Your task to perform on an android device: change notifications settings Image 0: 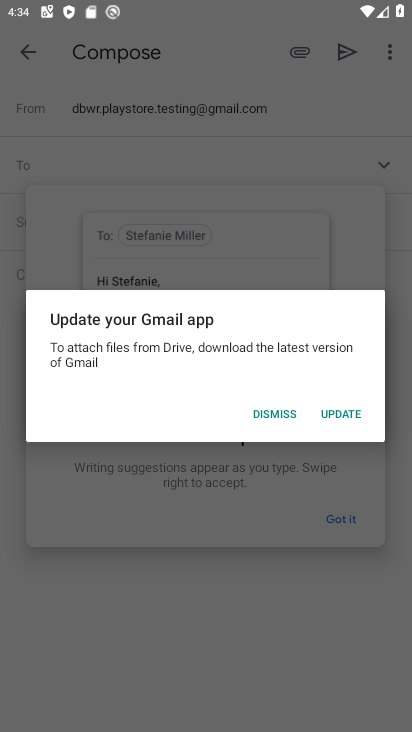
Step 0: press home button
Your task to perform on an android device: change notifications settings Image 1: 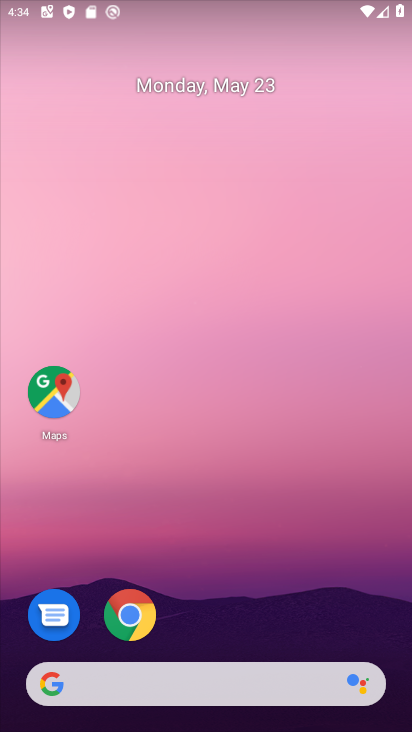
Step 1: drag from (267, 591) to (357, 43)
Your task to perform on an android device: change notifications settings Image 2: 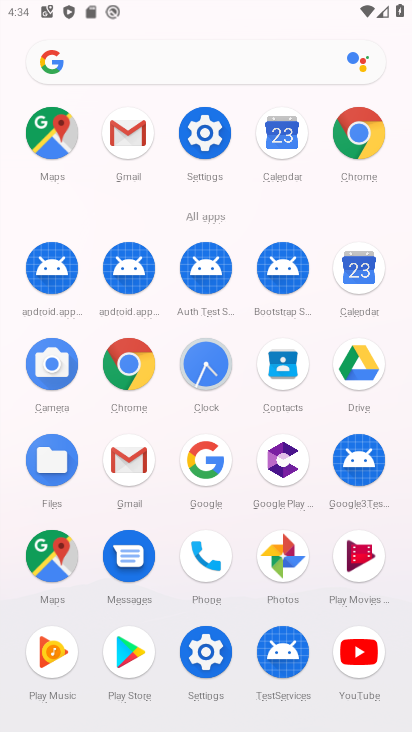
Step 2: click (196, 132)
Your task to perform on an android device: change notifications settings Image 3: 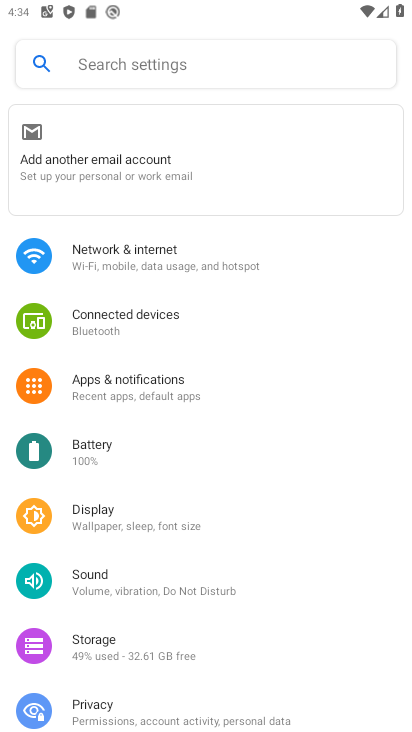
Step 3: click (122, 376)
Your task to perform on an android device: change notifications settings Image 4: 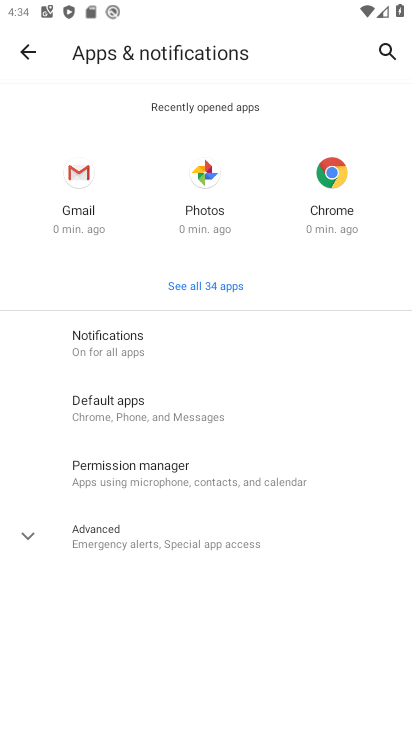
Step 4: click (147, 350)
Your task to perform on an android device: change notifications settings Image 5: 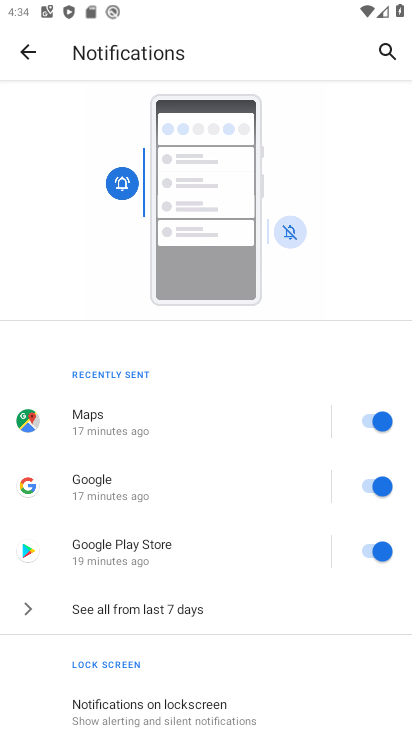
Step 5: drag from (235, 650) to (289, 203)
Your task to perform on an android device: change notifications settings Image 6: 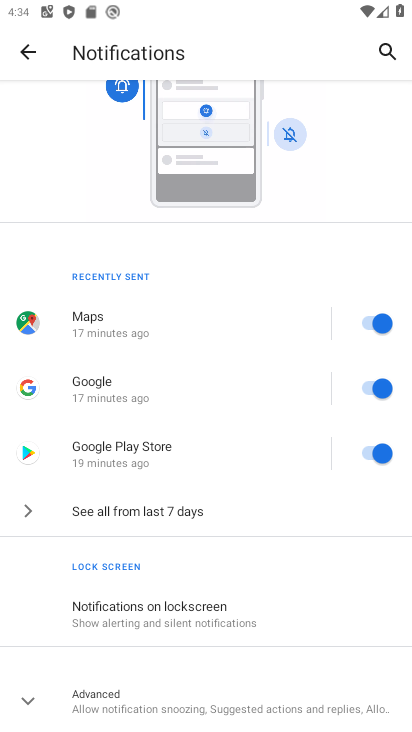
Step 6: click (154, 704)
Your task to perform on an android device: change notifications settings Image 7: 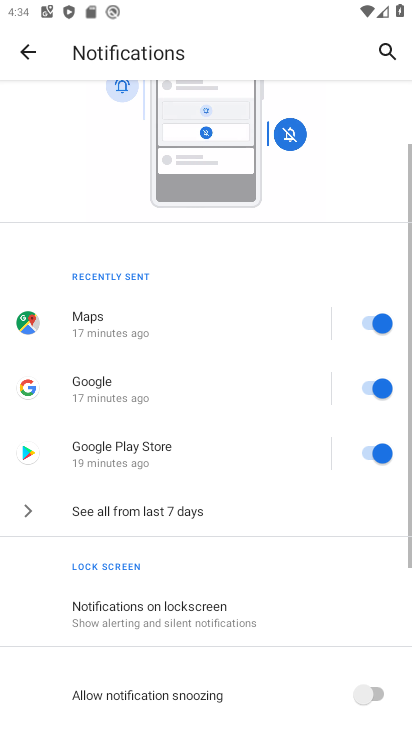
Step 7: drag from (168, 610) to (235, 237)
Your task to perform on an android device: change notifications settings Image 8: 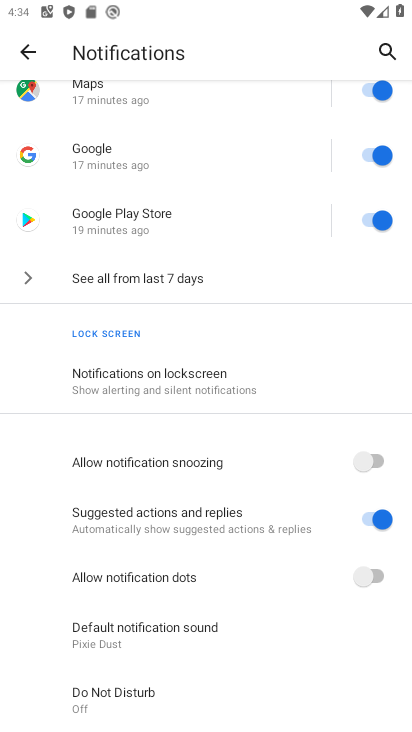
Step 8: click (365, 462)
Your task to perform on an android device: change notifications settings Image 9: 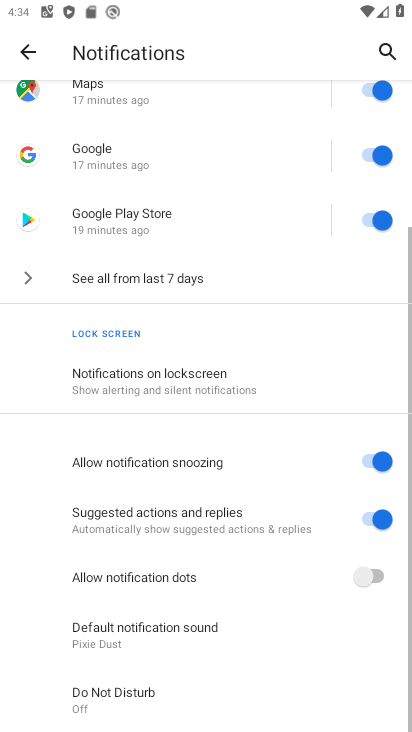
Step 9: task complete